Your task to perform on an android device: Clear all items from cart on newegg.com. Search for macbook pro 13 inch on newegg.com, select the first entry, and add it to the cart. Image 0: 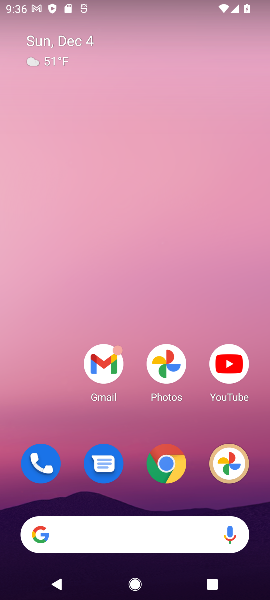
Step 0: click (134, 541)
Your task to perform on an android device: Clear all items from cart on newegg.com. Search for macbook pro 13 inch on newegg.com, select the first entry, and add it to the cart. Image 1: 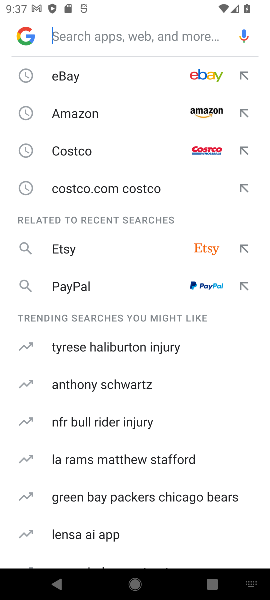
Step 1: type "newegg"
Your task to perform on an android device: Clear all items from cart on newegg.com. Search for macbook pro 13 inch on newegg.com, select the first entry, and add it to the cart. Image 2: 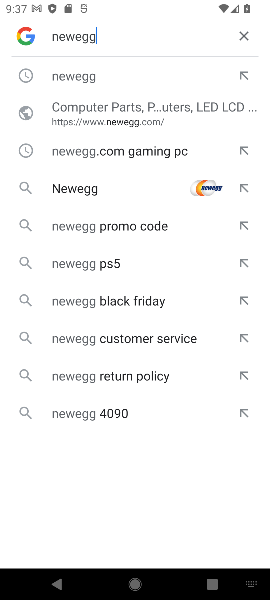
Step 2: click (106, 103)
Your task to perform on an android device: Clear all items from cart on newegg.com. Search for macbook pro 13 inch on newegg.com, select the first entry, and add it to the cart. Image 3: 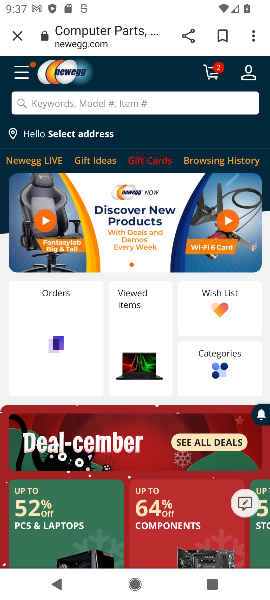
Step 3: task complete